Your task to perform on an android device: toggle pop-ups in chrome Image 0: 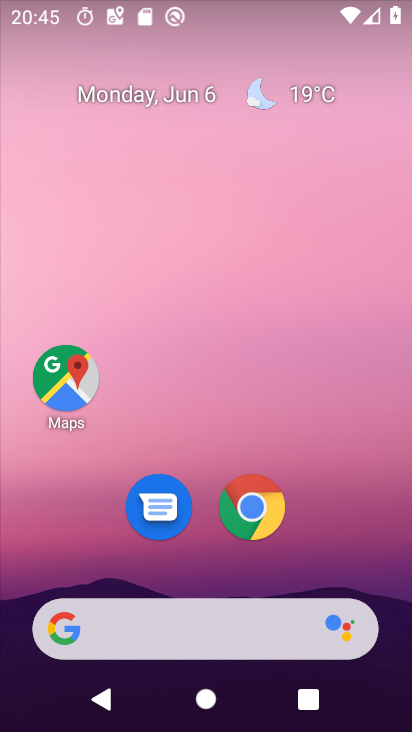
Step 0: drag from (377, 591) to (366, 63)
Your task to perform on an android device: toggle pop-ups in chrome Image 1: 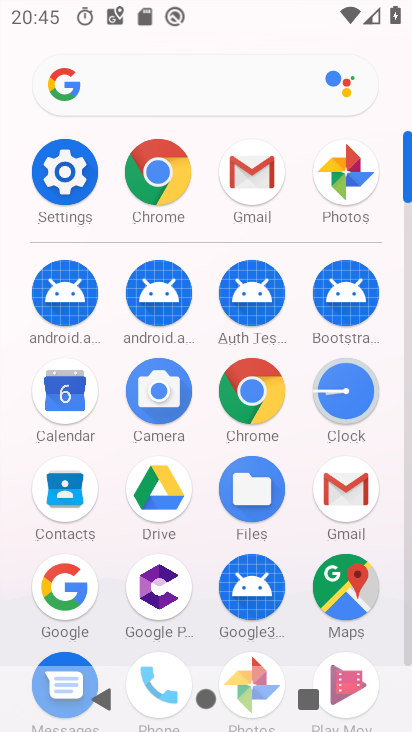
Step 1: click (148, 170)
Your task to perform on an android device: toggle pop-ups in chrome Image 2: 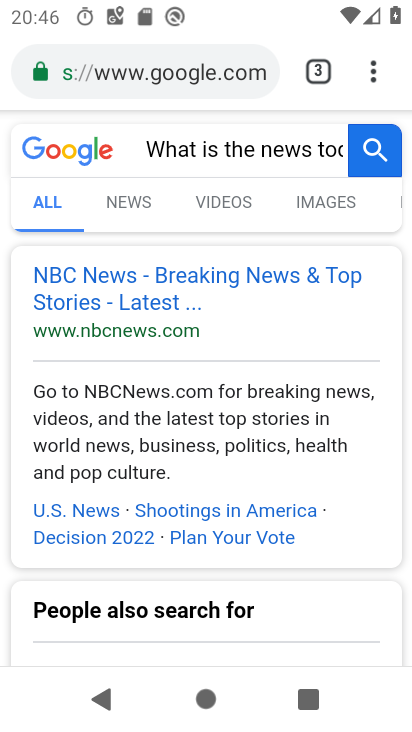
Step 2: drag from (381, 68) to (135, 495)
Your task to perform on an android device: toggle pop-ups in chrome Image 3: 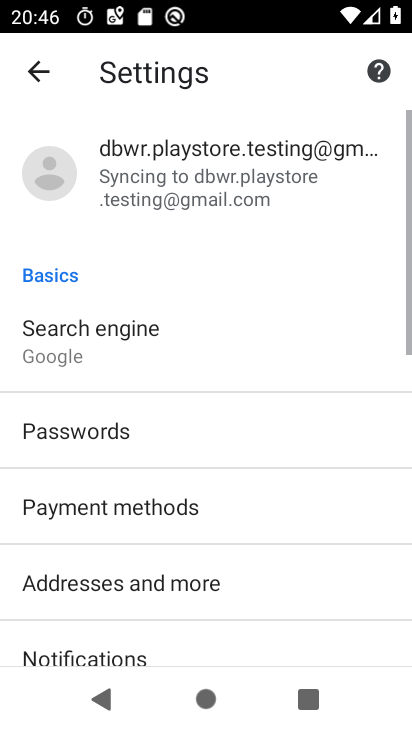
Step 3: drag from (246, 642) to (330, 12)
Your task to perform on an android device: toggle pop-ups in chrome Image 4: 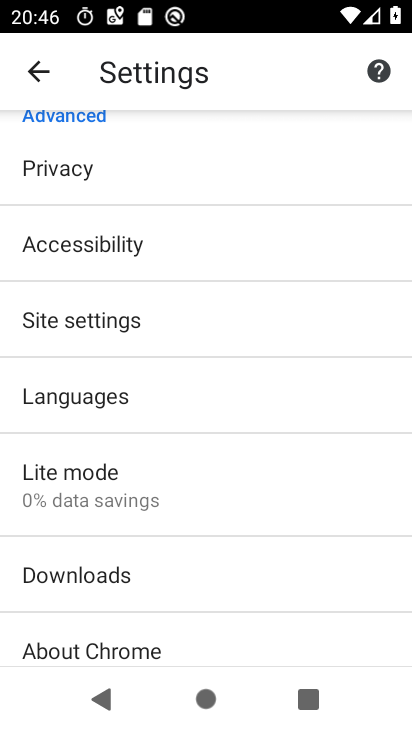
Step 4: click (153, 308)
Your task to perform on an android device: toggle pop-ups in chrome Image 5: 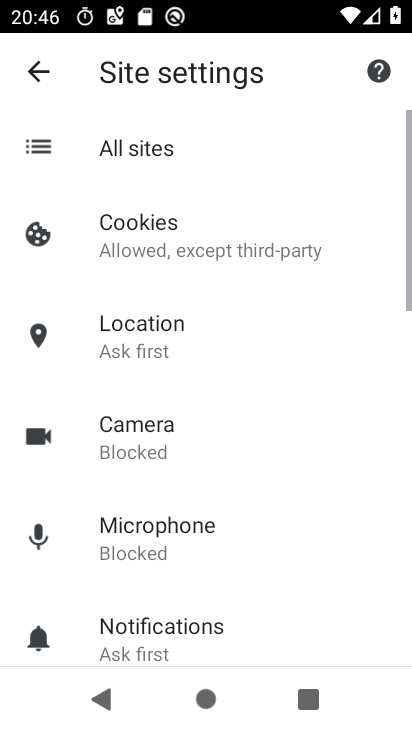
Step 5: drag from (298, 615) to (313, 104)
Your task to perform on an android device: toggle pop-ups in chrome Image 6: 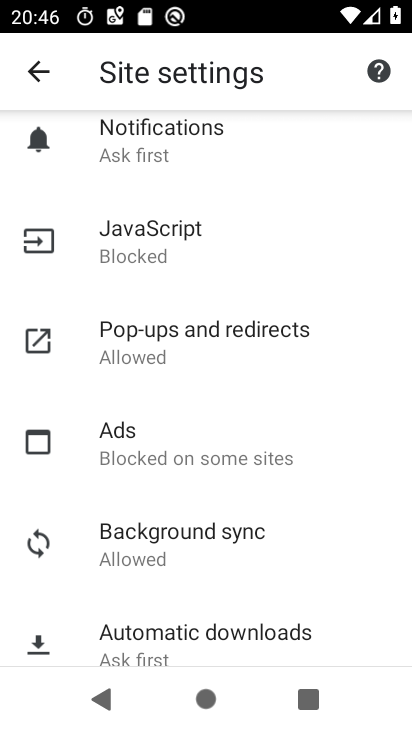
Step 6: click (233, 333)
Your task to perform on an android device: toggle pop-ups in chrome Image 7: 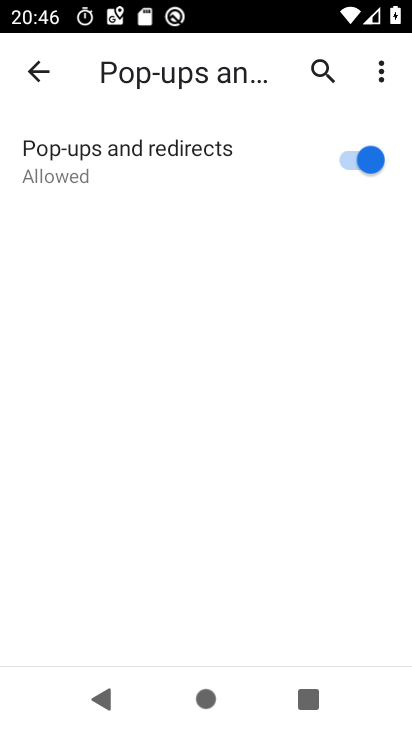
Step 7: click (183, 157)
Your task to perform on an android device: toggle pop-ups in chrome Image 8: 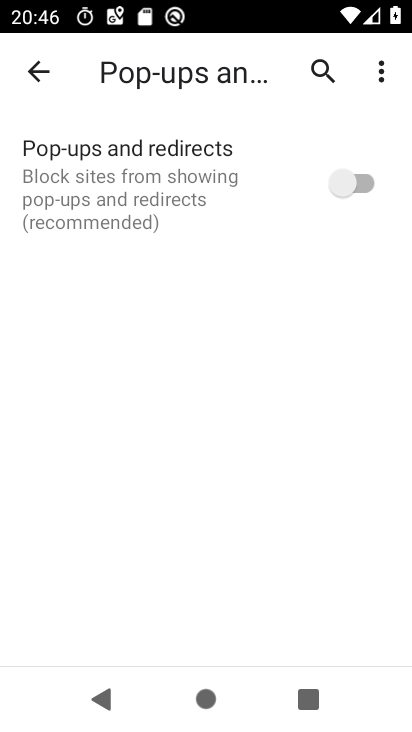
Step 8: task complete